Your task to perform on an android device: snooze an email in the gmail app Image 0: 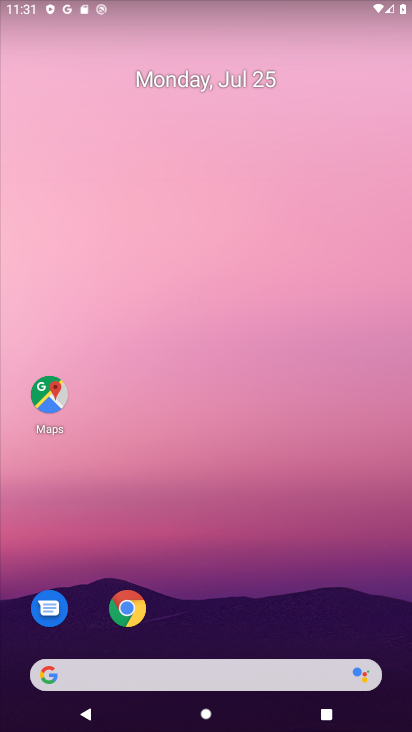
Step 0: drag from (181, 630) to (290, 9)
Your task to perform on an android device: snooze an email in the gmail app Image 1: 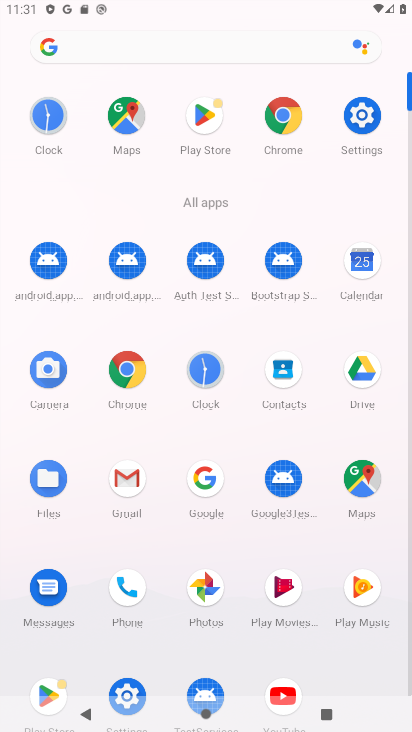
Step 1: click (130, 480)
Your task to perform on an android device: snooze an email in the gmail app Image 2: 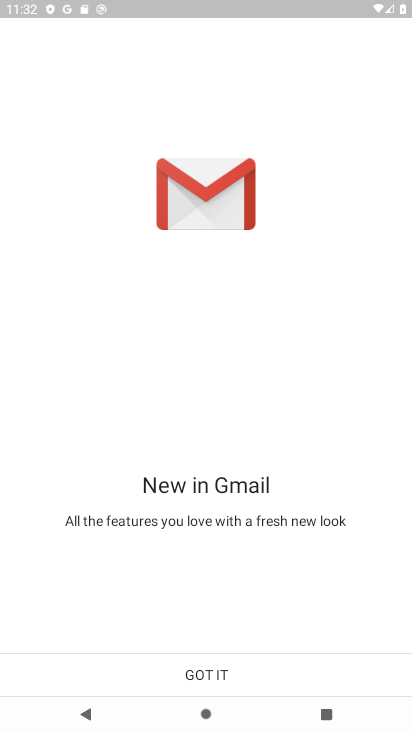
Step 2: click (205, 679)
Your task to perform on an android device: snooze an email in the gmail app Image 3: 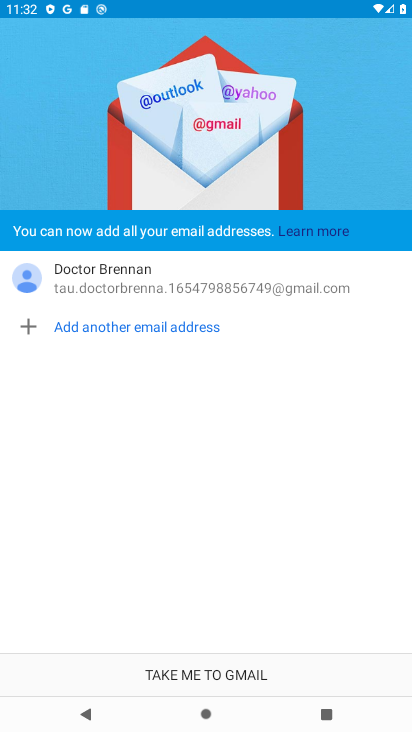
Step 3: click (146, 677)
Your task to perform on an android device: snooze an email in the gmail app Image 4: 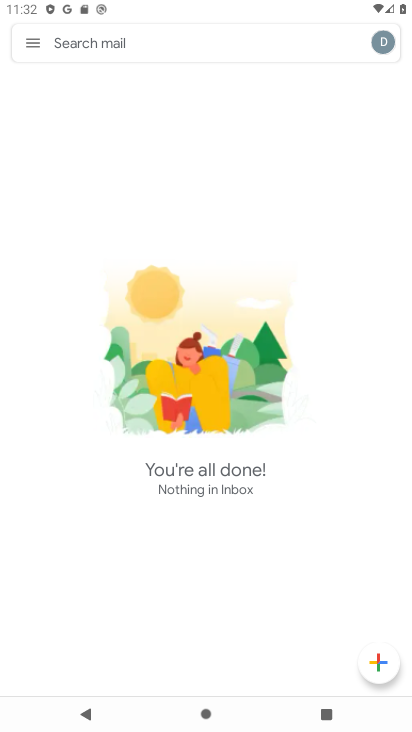
Step 4: task complete